Your task to perform on an android device: What's on my calendar tomorrow? Image 0: 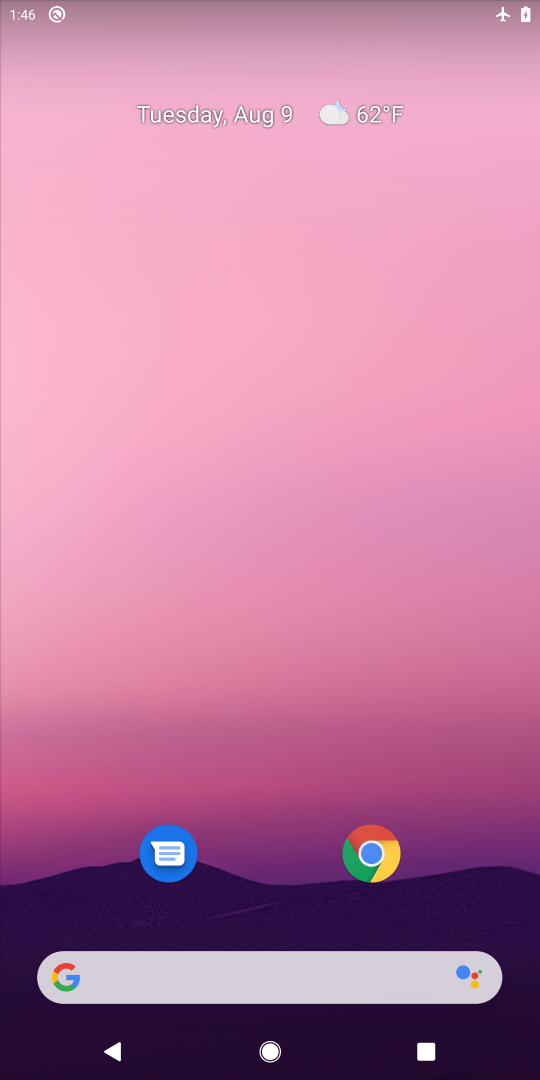
Step 0: press home button
Your task to perform on an android device: What's on my calendar tomorrow? Image 1: 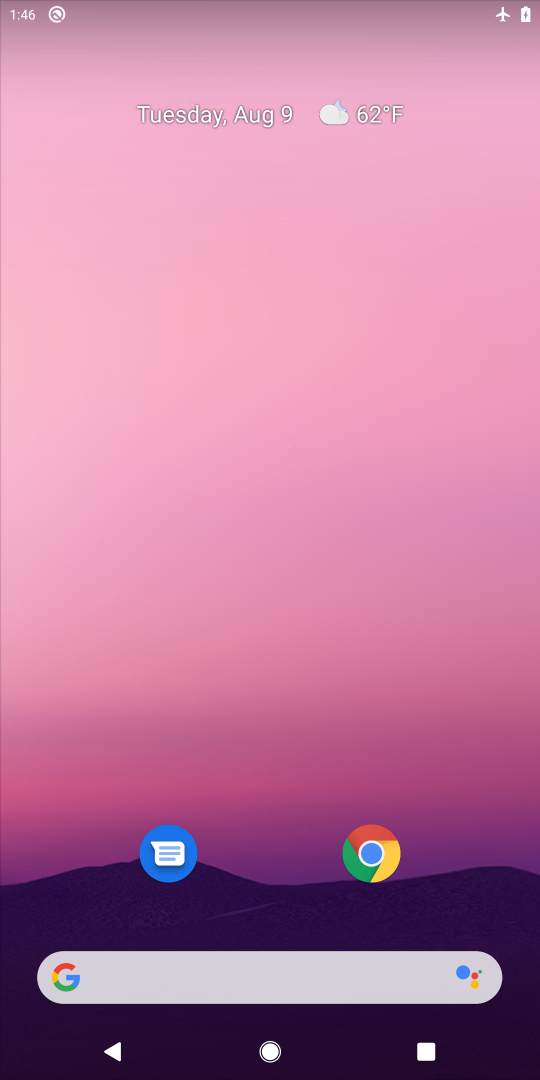
Step 1: drag from (252, 776) to (244, 273)
Your task to perform on an android device: What's on my calendar tomorrow? Image 2: 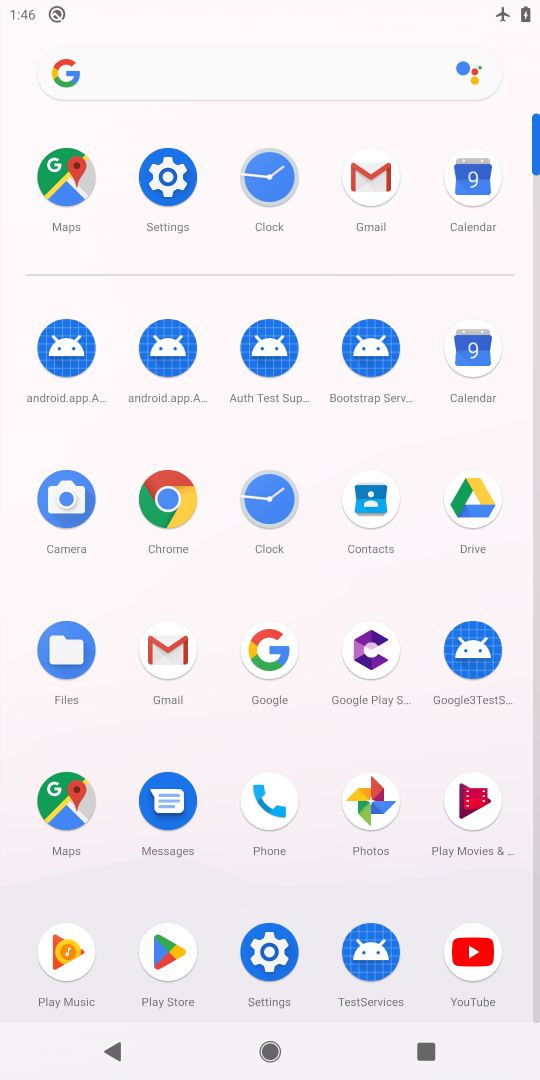
Step 2: click (472, 352)
Your task to perform on an android device: What's on my calendar tomorrow? Image 3: 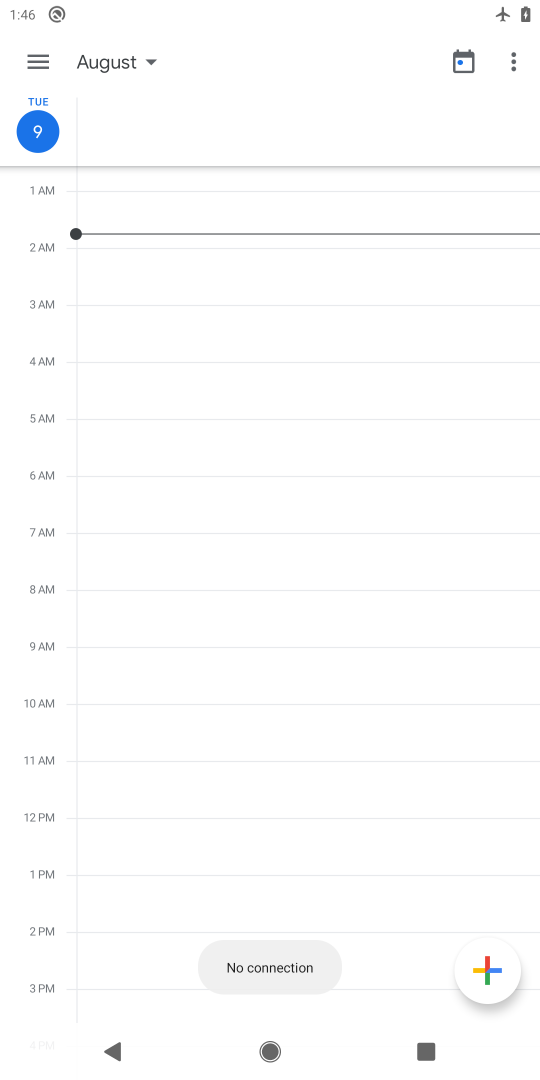
Step 3: task complete